Your task to perform on an android device: Go to eBay Image 0: 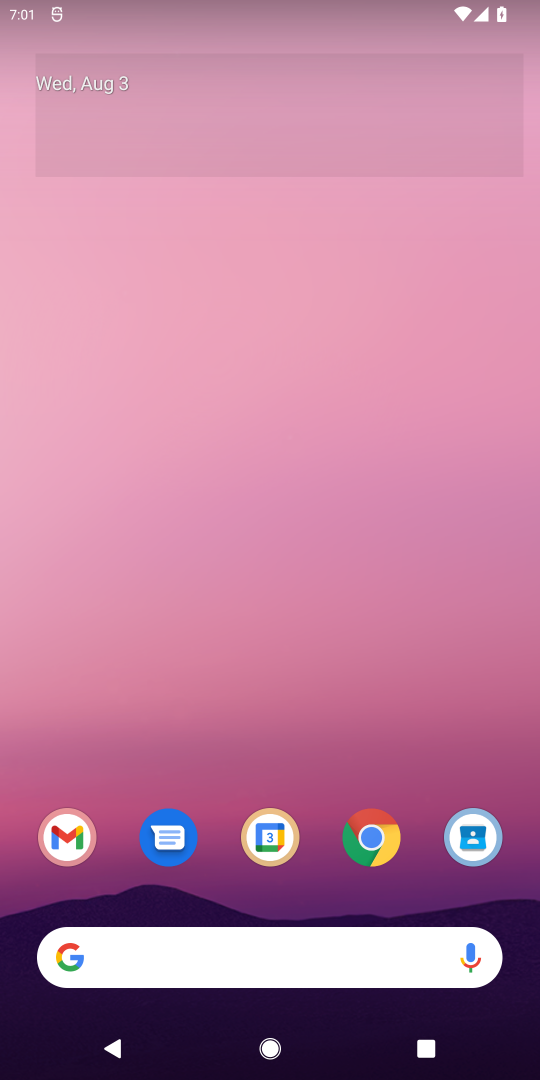
Step 0: press home button
Your task to perform on an android device: Go to eBay Image 1: 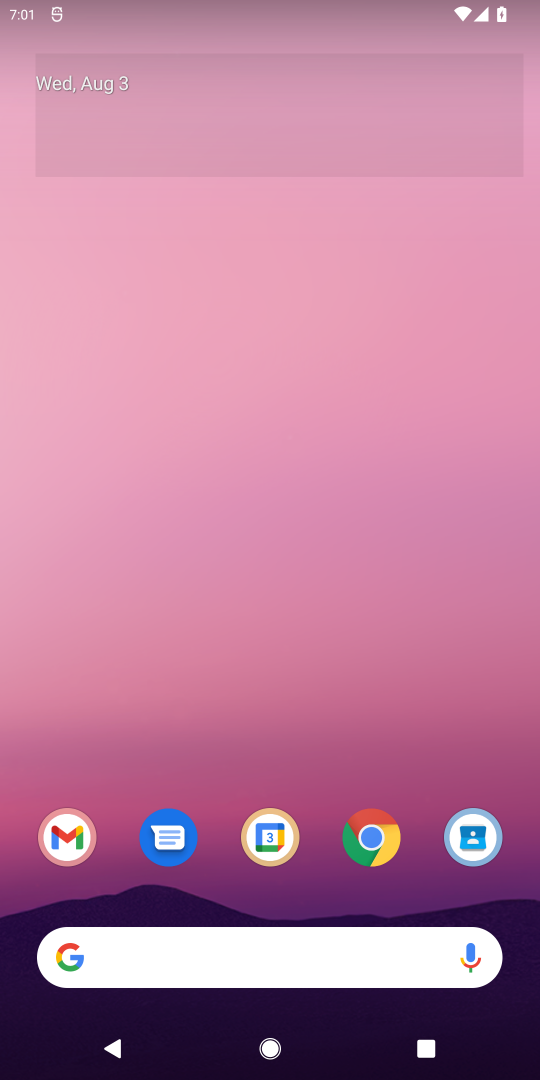
Step 1: drag from (374, 746) to (192, 120)
Your task to perform on an android device: Go to eBay Image 2: 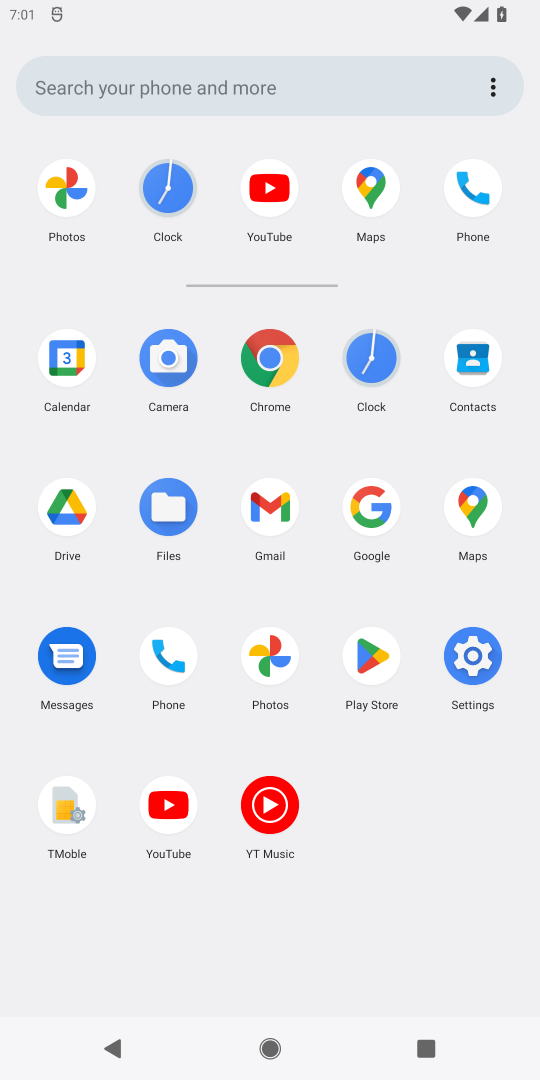
Step 2: click (371, 507)
Your task to perform on an android device: Go to eBay Image 3: 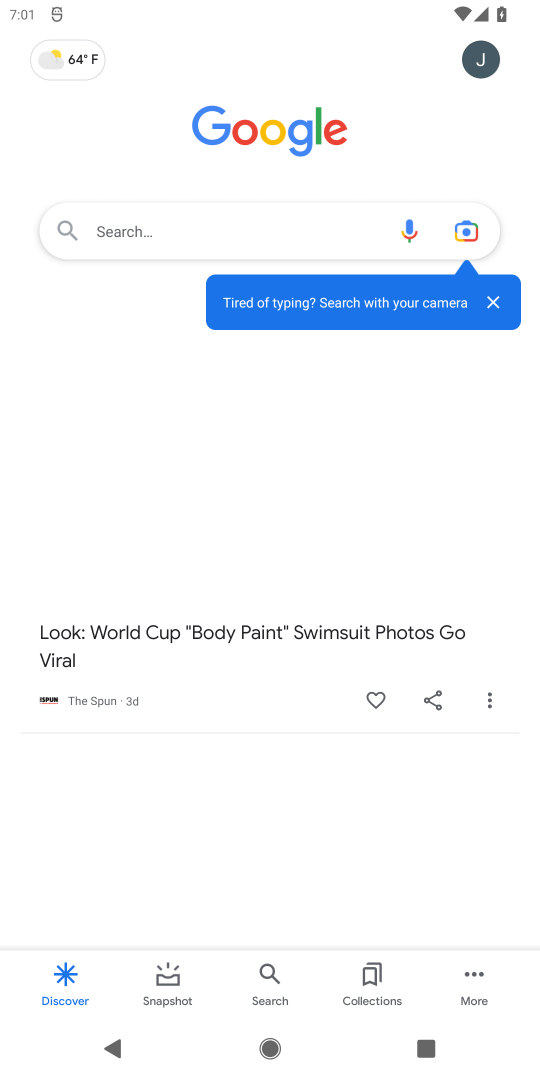
Step 3: click (173, 224)
Your task to perform on an android device: Go to eBay Image 4: 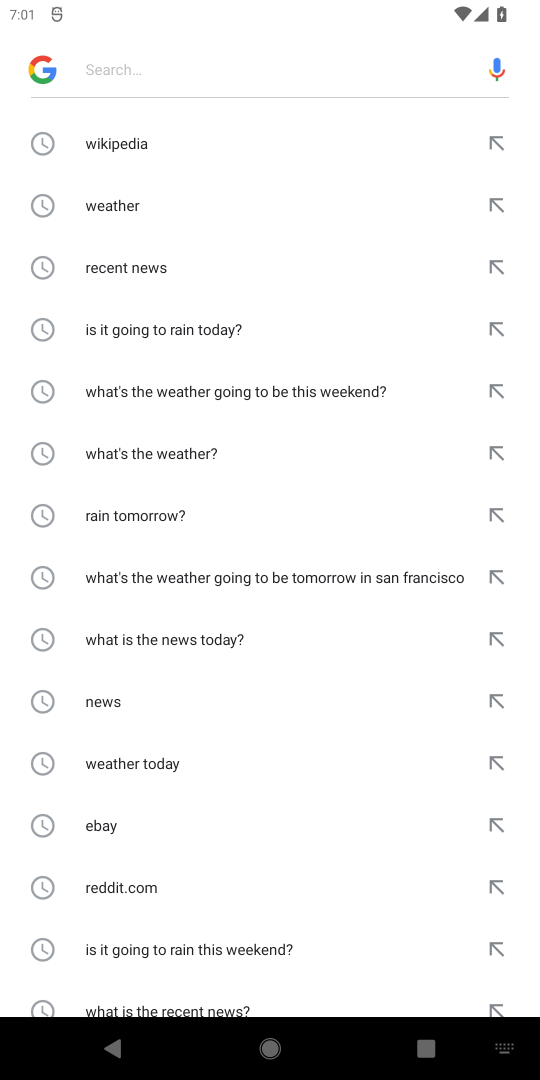
Step 4: type "Go to eBay"
Your task to perform on an android device: Go to eBay Image 5: 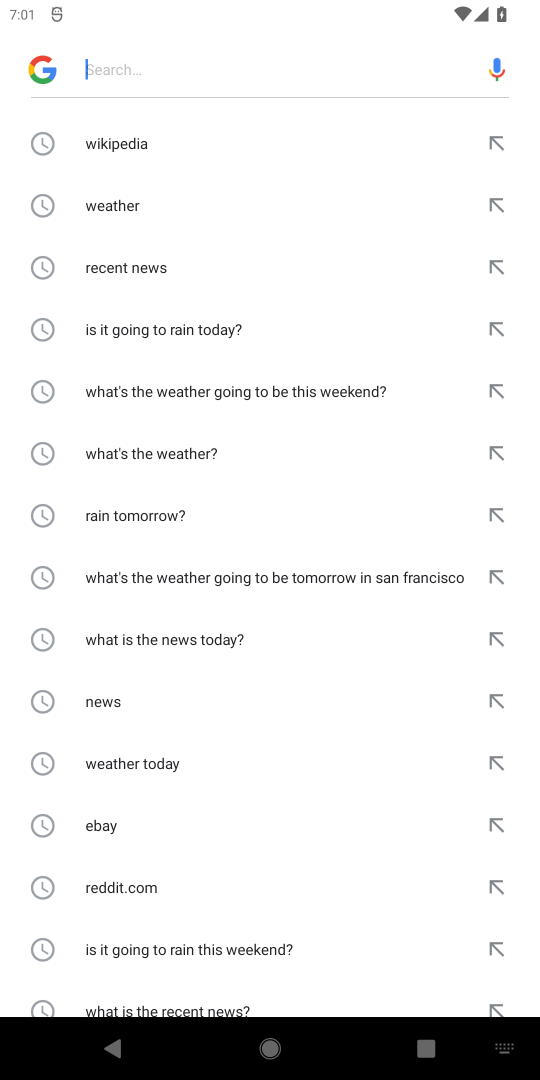
Step 5: click (146, 64)
Your task to perform on an android device: Go to eBay Image 6: 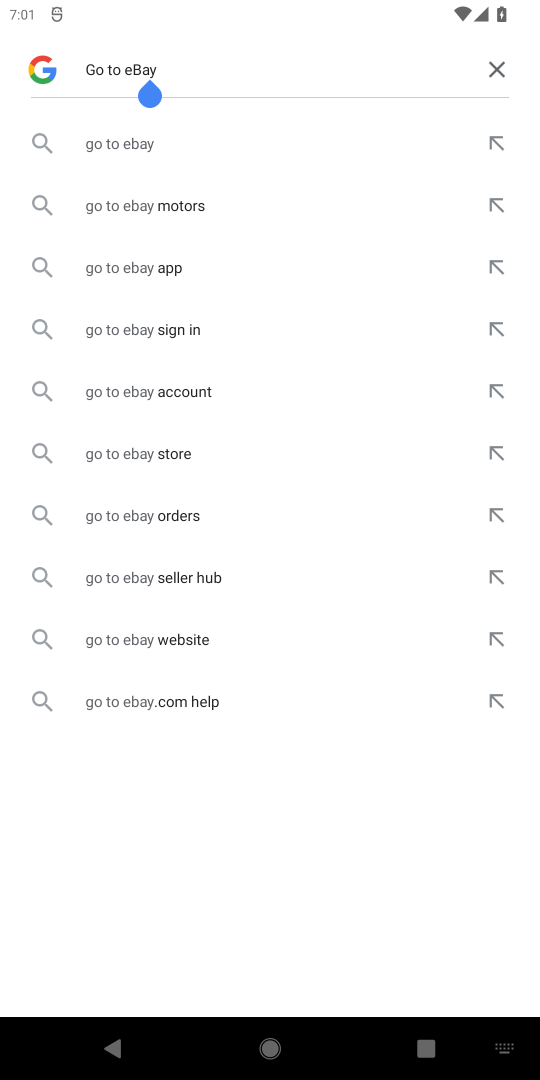
Step 6: press enter
Your task to perform on an android device: Go to eBay Image 7: 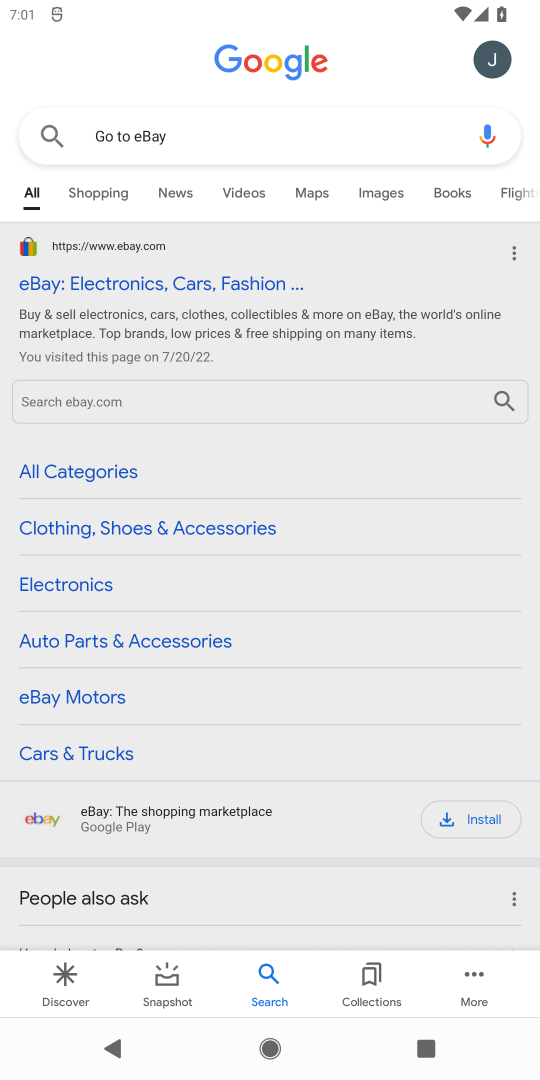
Step 7: click (93, 283)
Your task to perform on an android device: Go to eBay Image 8: 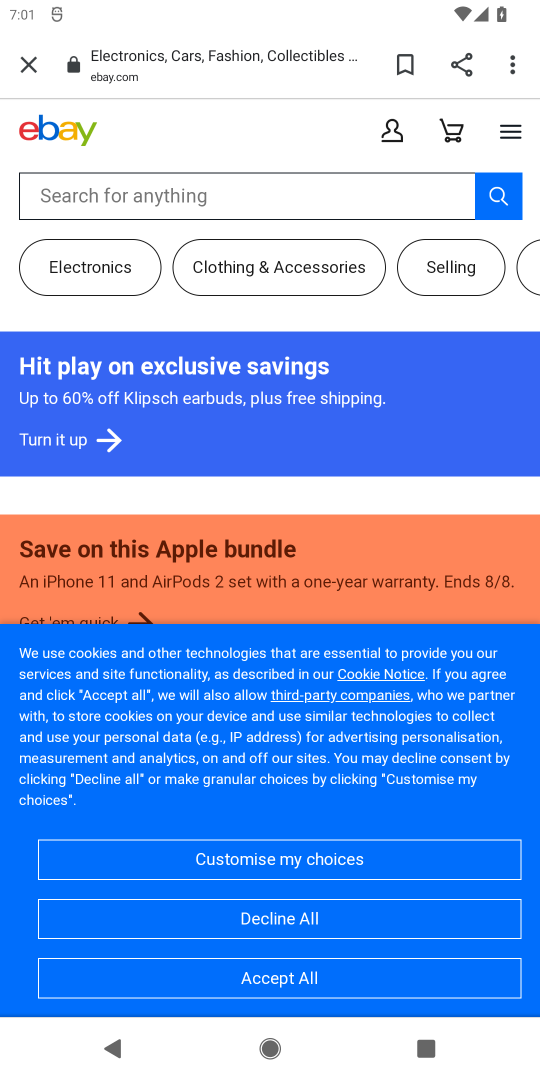
Step 8: task complete